Your task to perform on an android device: check android version Image 0: 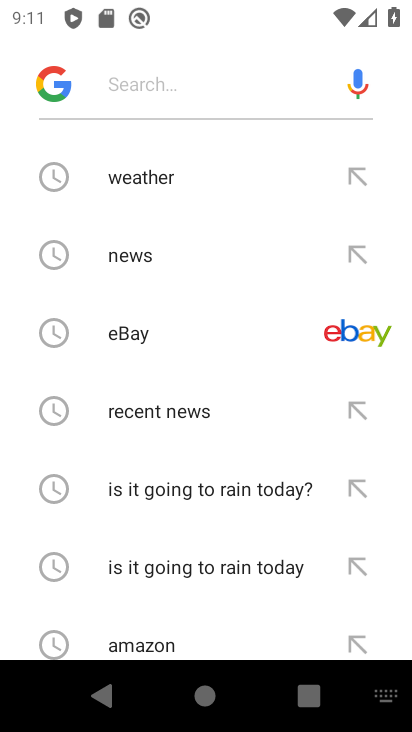
Step 0: press home button
Your task to perform on an android device: check android version Image 1: 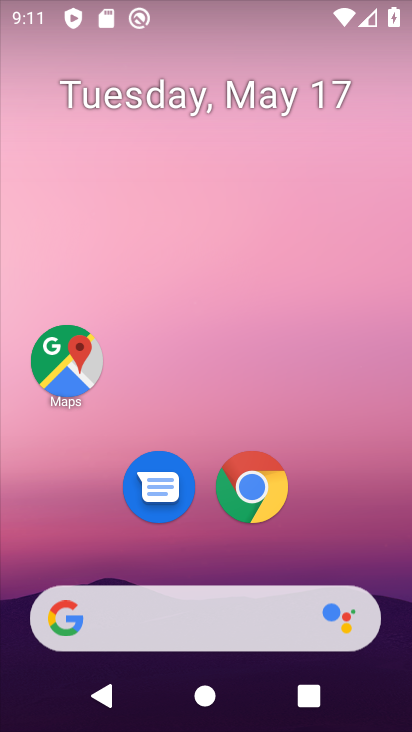
Step 1: drag from (212, 544) to (340, 73)
Your task to perform on an android device: check android version Image 2: 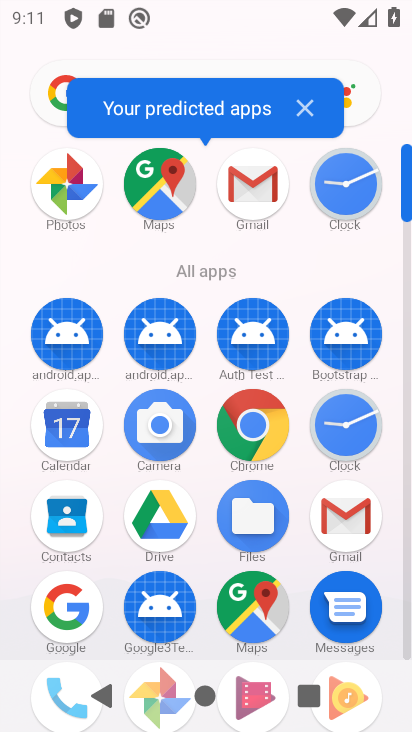
Step 2: drag from (195, 582) to (270, 242)
Your task to perform on an android device: check android version Image 3: 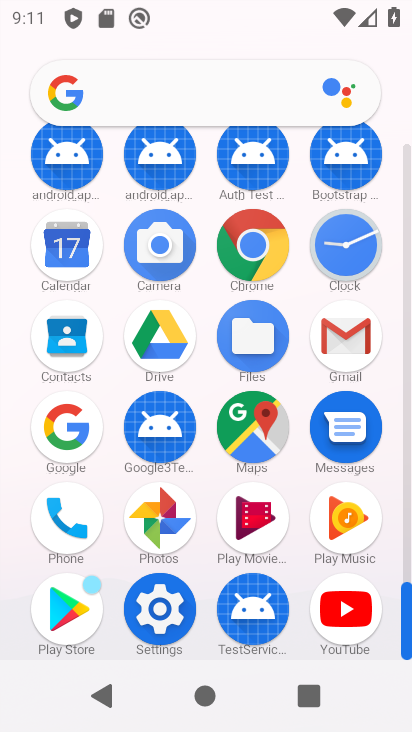
Step 3: click (165, 606)
Your task to perform on an android device: check android version Image 4: 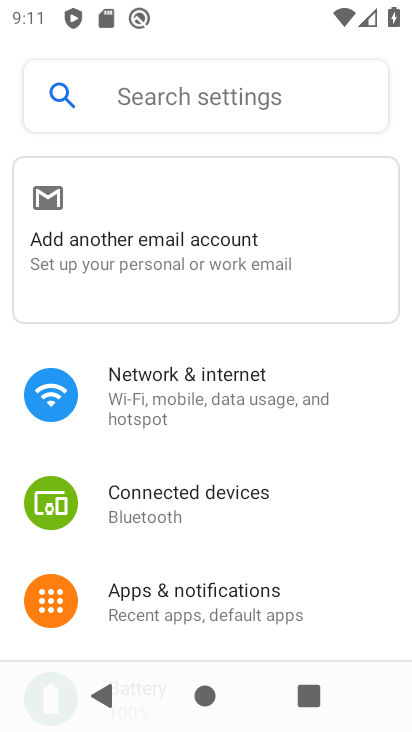
Step 4: drag from (178, 548) to (252, 202)
Your task to perform on an android device: check android version Image 5: 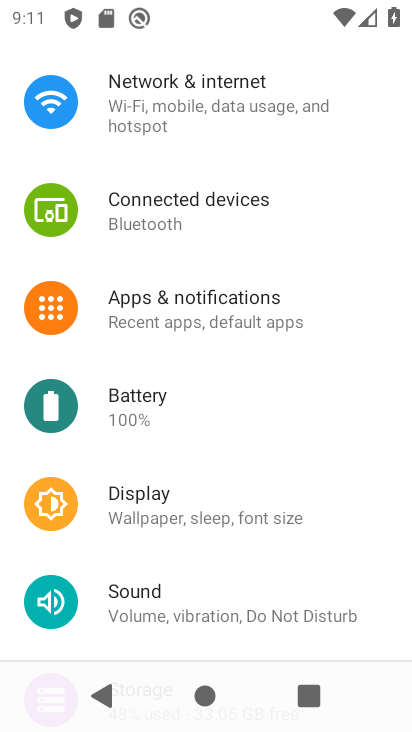
Step 5: drag from (159, 527) to (254, 262)
Your task to perform on an android device: check android version Image 6: 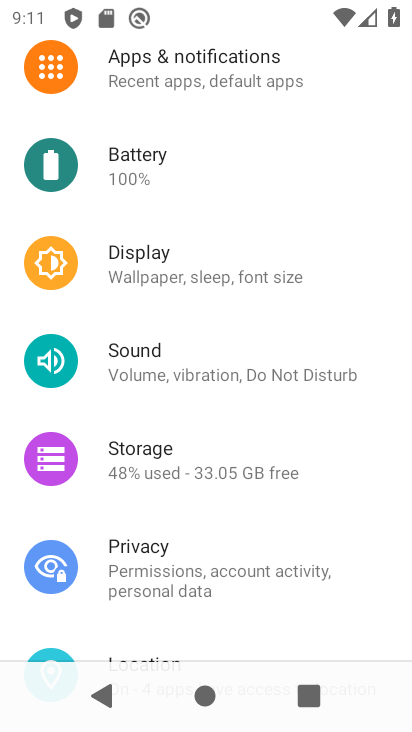
Step 6: drag from (187, 570) to (257, 275)
Your task to perform on an android device: check android version Image 7: 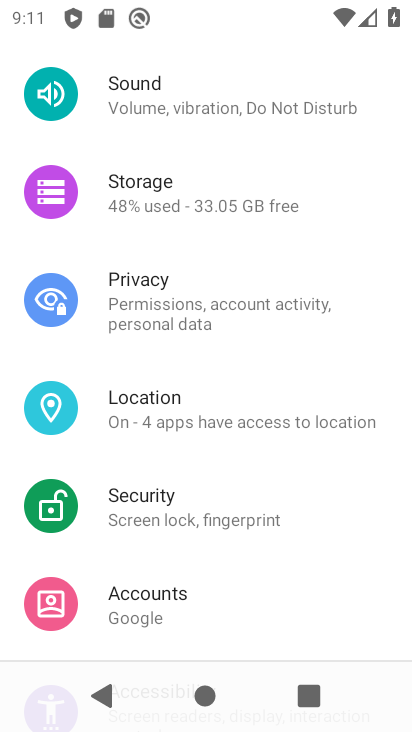
Step 7: drag from (194, 603) to (265, 228)
Your task to perform on an android device: check android version Image 8: 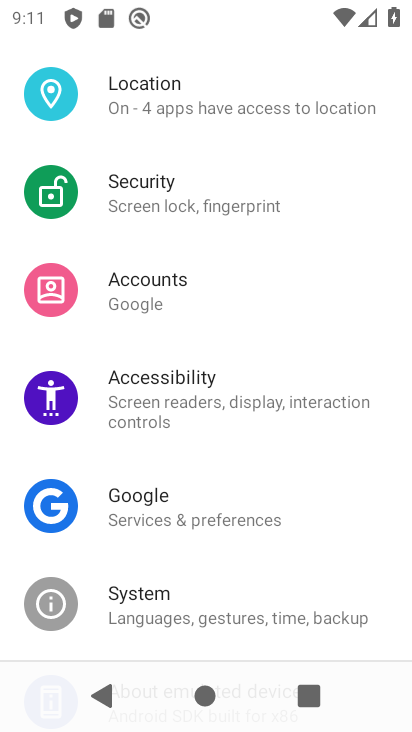
Step 8: click (154, 600)
Your task to perform on an android device: check android version Image 9: 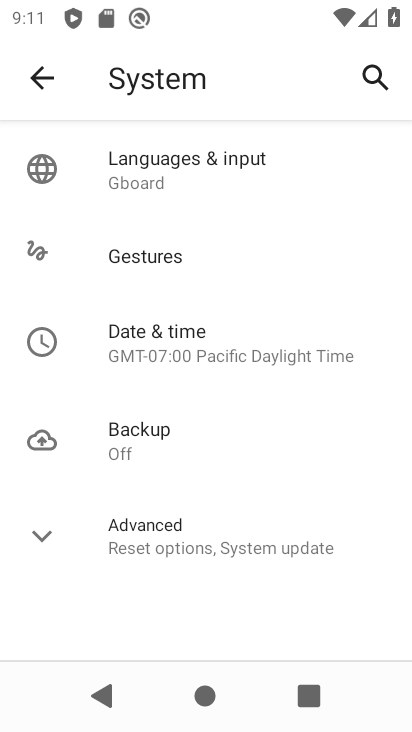
Step 9: click (52, 81)
Your task to perform on an android device: check android version Image 10: 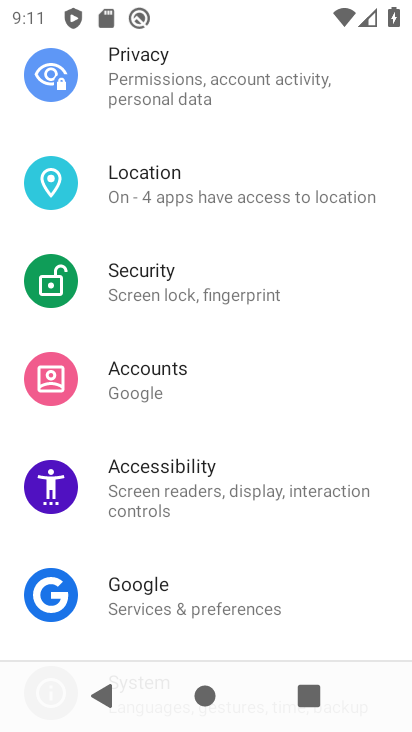
Step 10: drag from (183, 547) to (294, 9)
Your task to perform on an android device: check android version Image 11: 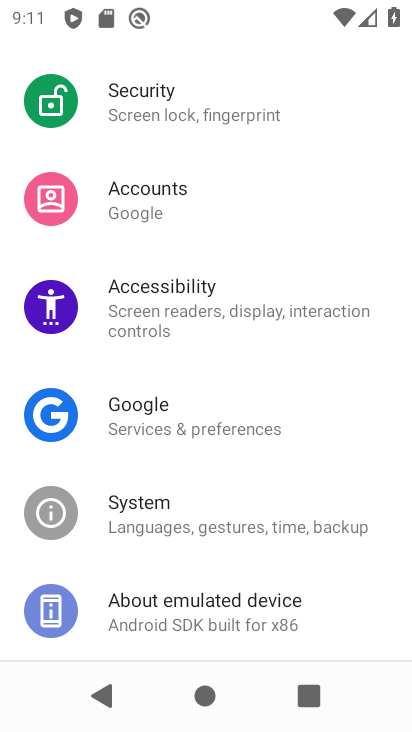
Step 11: click (236, 619)
Your task to perform on an android device: check android version Image 12: 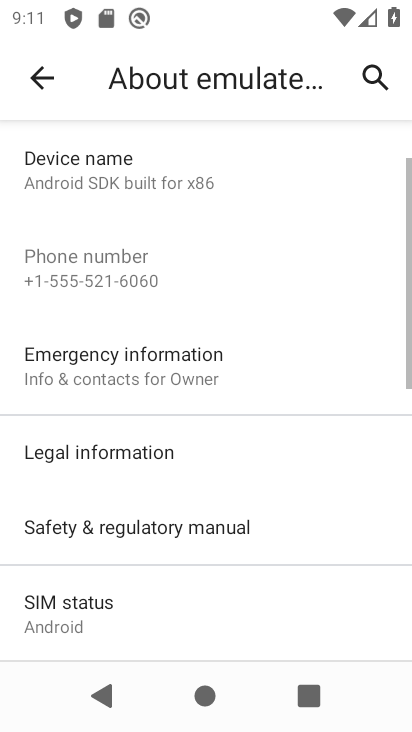
Step 12: drag from (151, 569) to (210, 212)
Your task to perform on an android device: check android version Image 13: 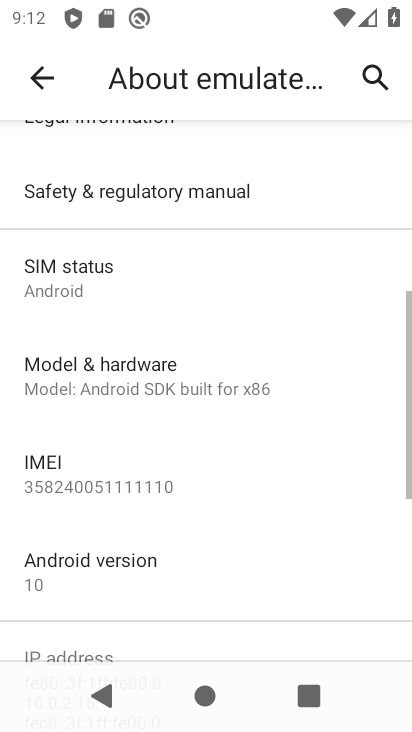
Step 13: click (79, 564)
Your task to perform on an android device: check android version Image 14: 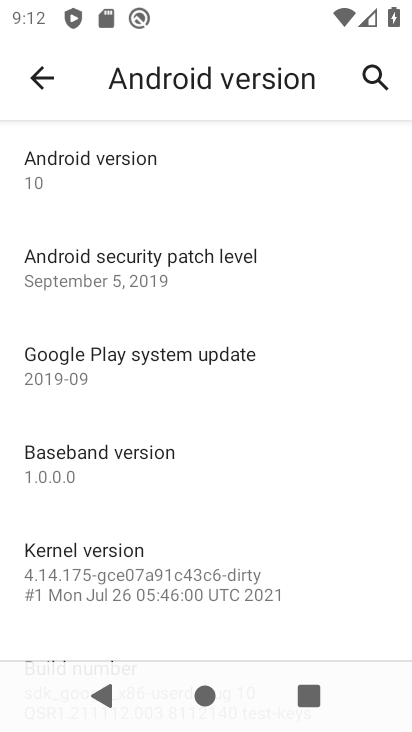
Step 14: task complete